Your task to perform on an android device: Open Android settings Image 0: 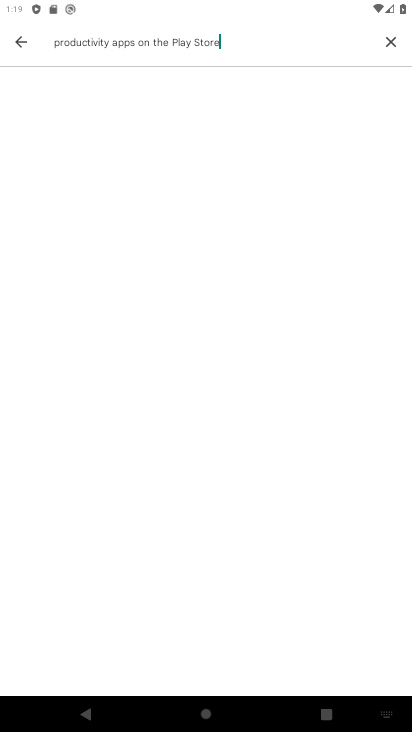
Step 0: press home button
Your task to perform on an android device: Open Android settings Image 1: 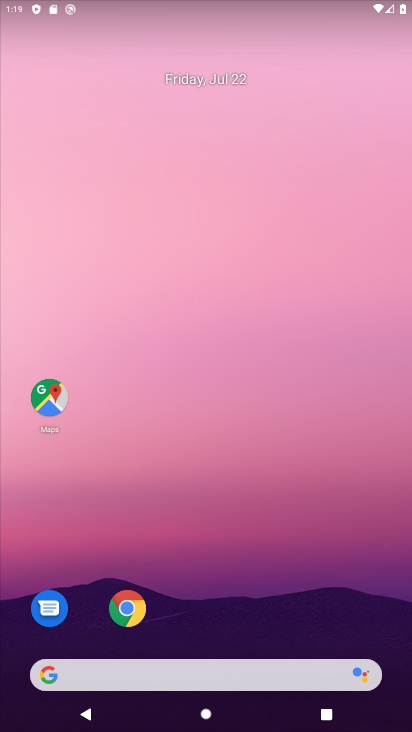
Step 1: drag from (389, 694) to (290, 128)
Your task to perform on an android device: Open Android settings Image 2: 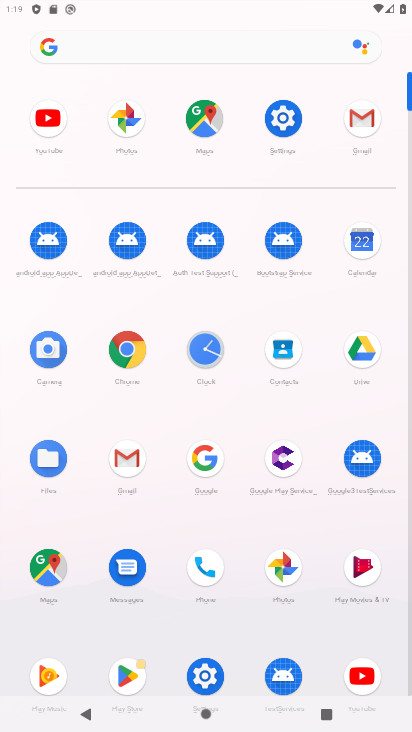
Step 2: click (286, 132)
Your task to perform on an android device: Open Android settings Image 3: 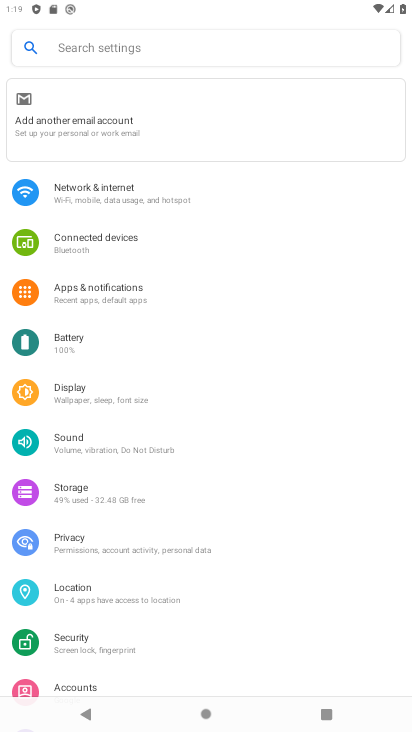
Step 3: task complete